Your task to perform on an android device: set an alarm Image 0: 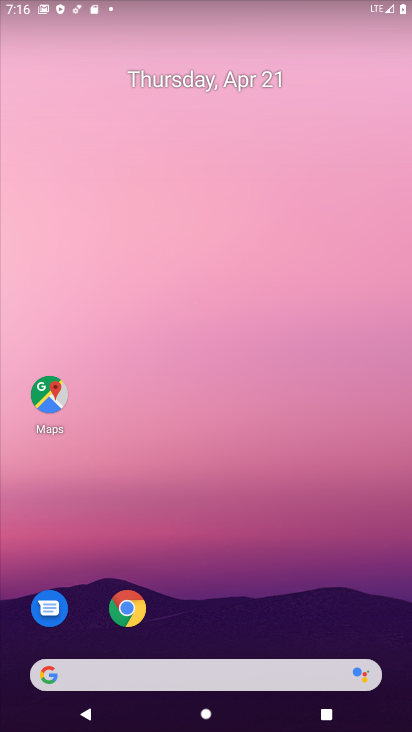
Step 0: drag from (201, 578) to (221, 133)
Your task to perform on an android device: set an alarm Image 1: 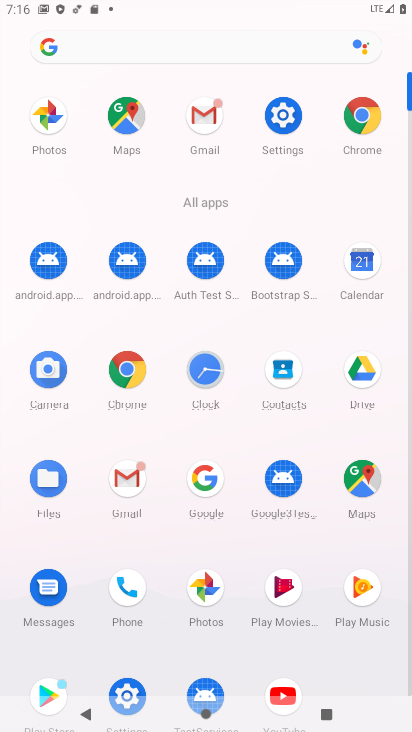
Step 1: click (208, 376)
Your task to perform on an android device: set an alarm Image 2: 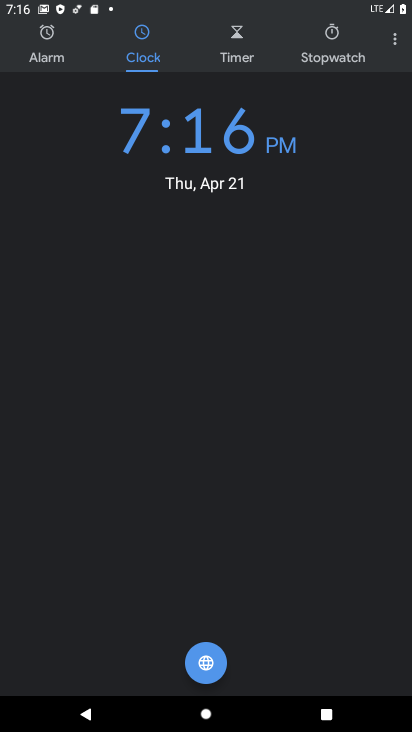
Step 2: click (46, 58)
Your task to perform on an android device: set an alarm Image 3: 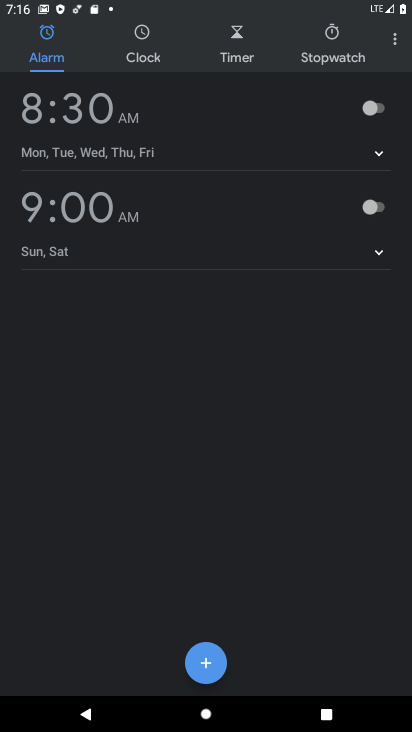
Step 3: click (208, 667)
Your task to perform on an android device: set an alarm Image 4: 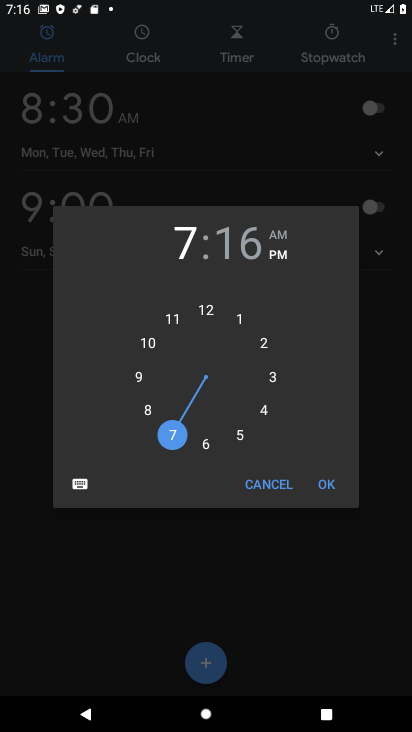
Step 4: click (335, 486)
Your task to perform on an android device: set an alarm Image 5: 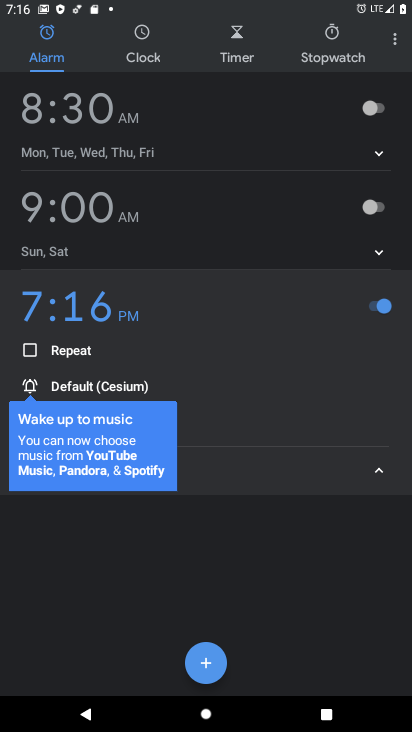
Step 5: task complete